Your task to perform on an android device: Open Yahoo.com Image 0: 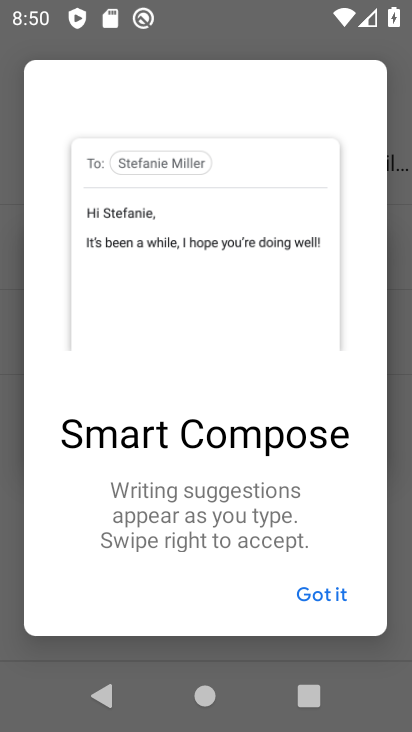
Step 0: press home button
Your task to perform on an android device: Open Yahoo.com Image 1: 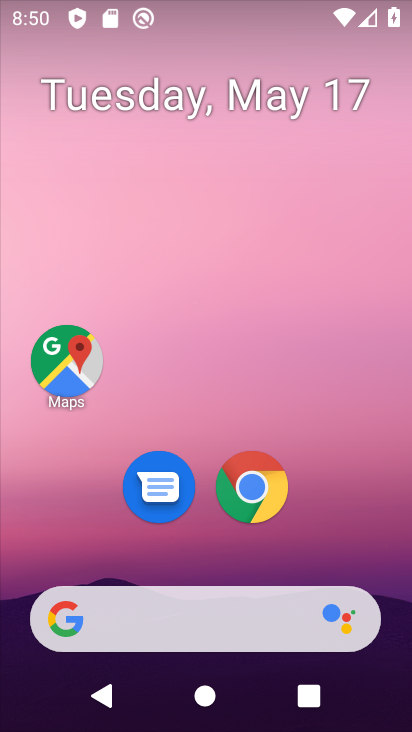
Step 1: drag from (274, 675) to (344, 239)
Your task to perform on an android device: Open Yahoo.com Image 2: 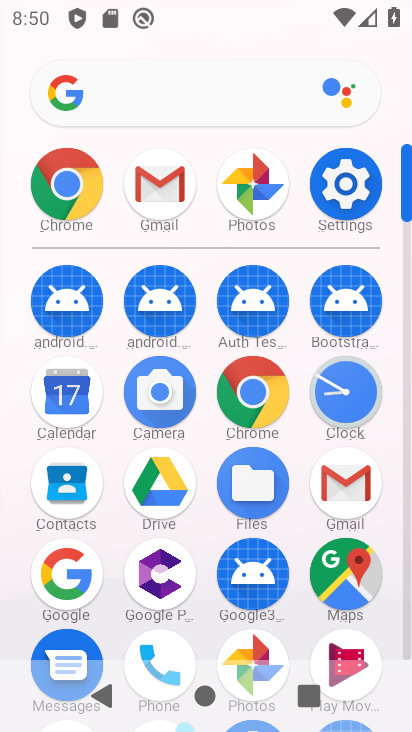
Step 2: click (64, 182)
Your task to perform on an android device: Open Yahoo.com Image 3: 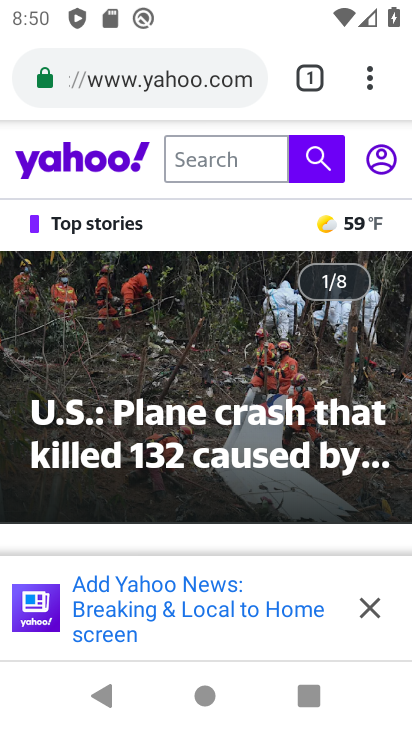
Step 3: click (166, 81)
Your task to perform on an android device: Open Yahoo.com Image 4: 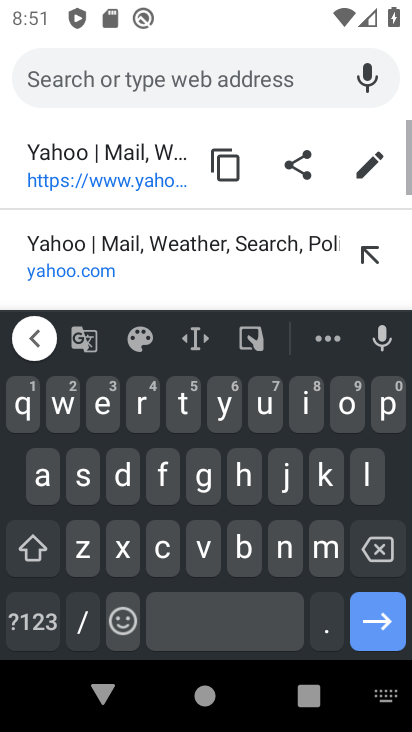
Step 4: click (110, 180)
Your task to perform on an android device: Open Yahoo.com Image 5: 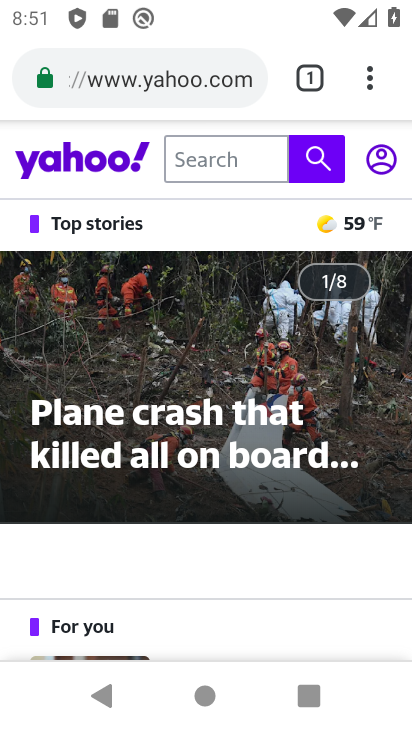
Step 5: task complete